Your task to perform on an android device: Is it going to rain tomorrow? Image 0: 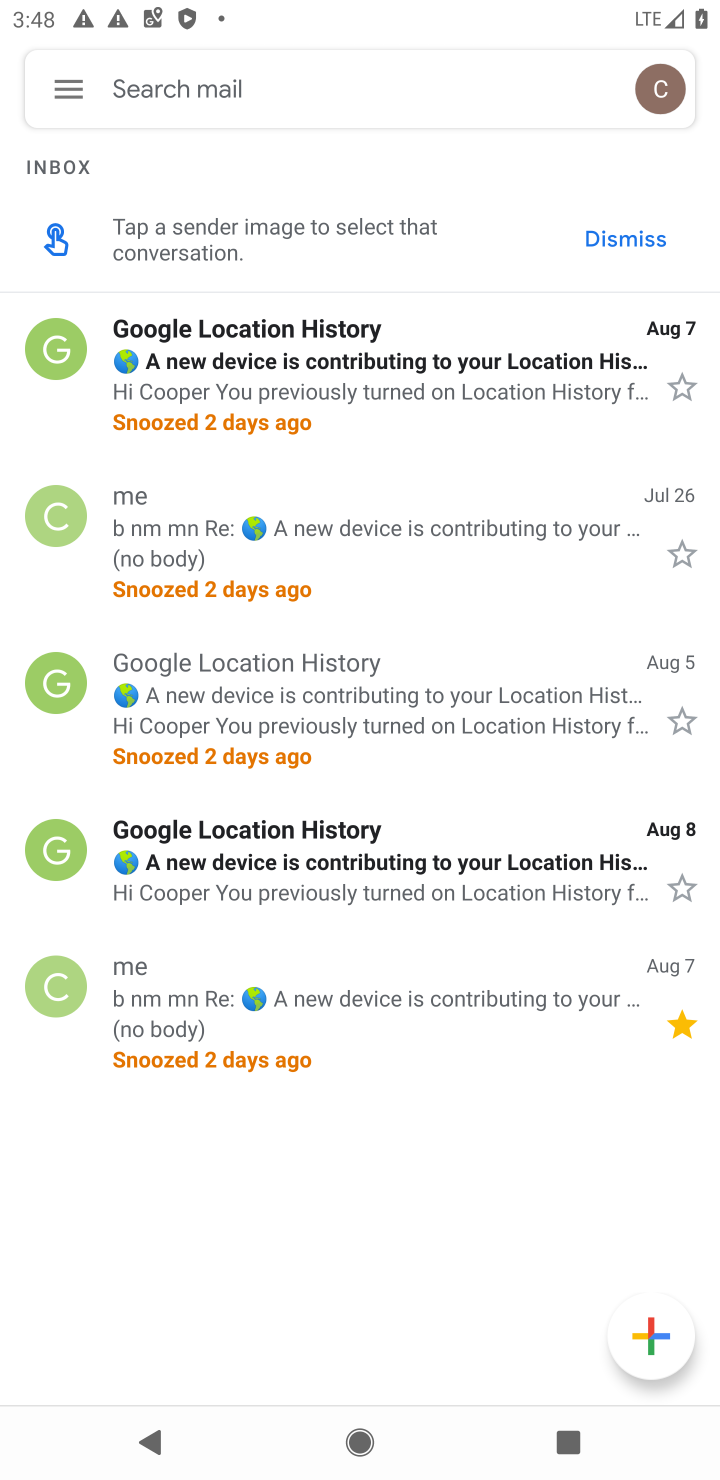
Step 0: press home button
Your task to perform on an android device: Is it going to rain tomorrow? Image 1: 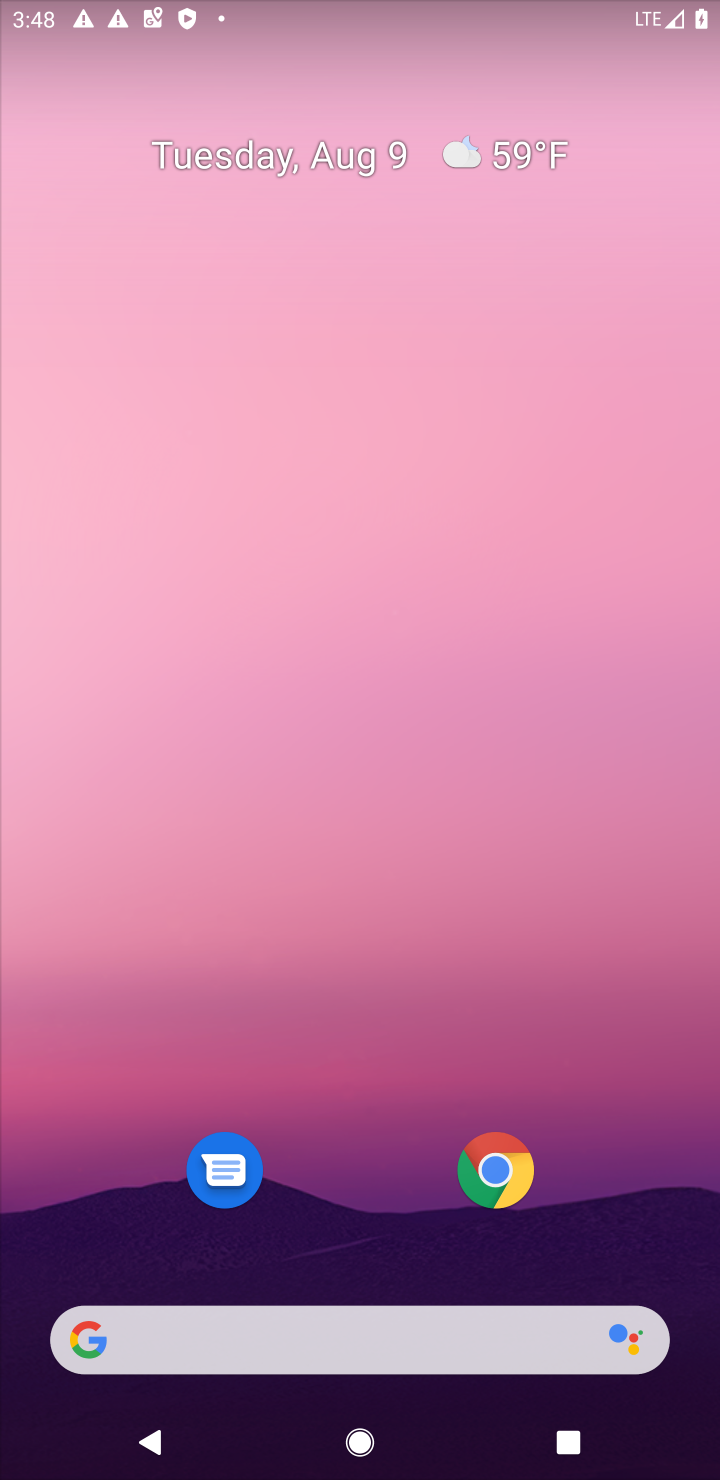
Step 1: click (83, 1336)
Your task to perform on an android device: Is it going to rain tomorrow? Image 2: 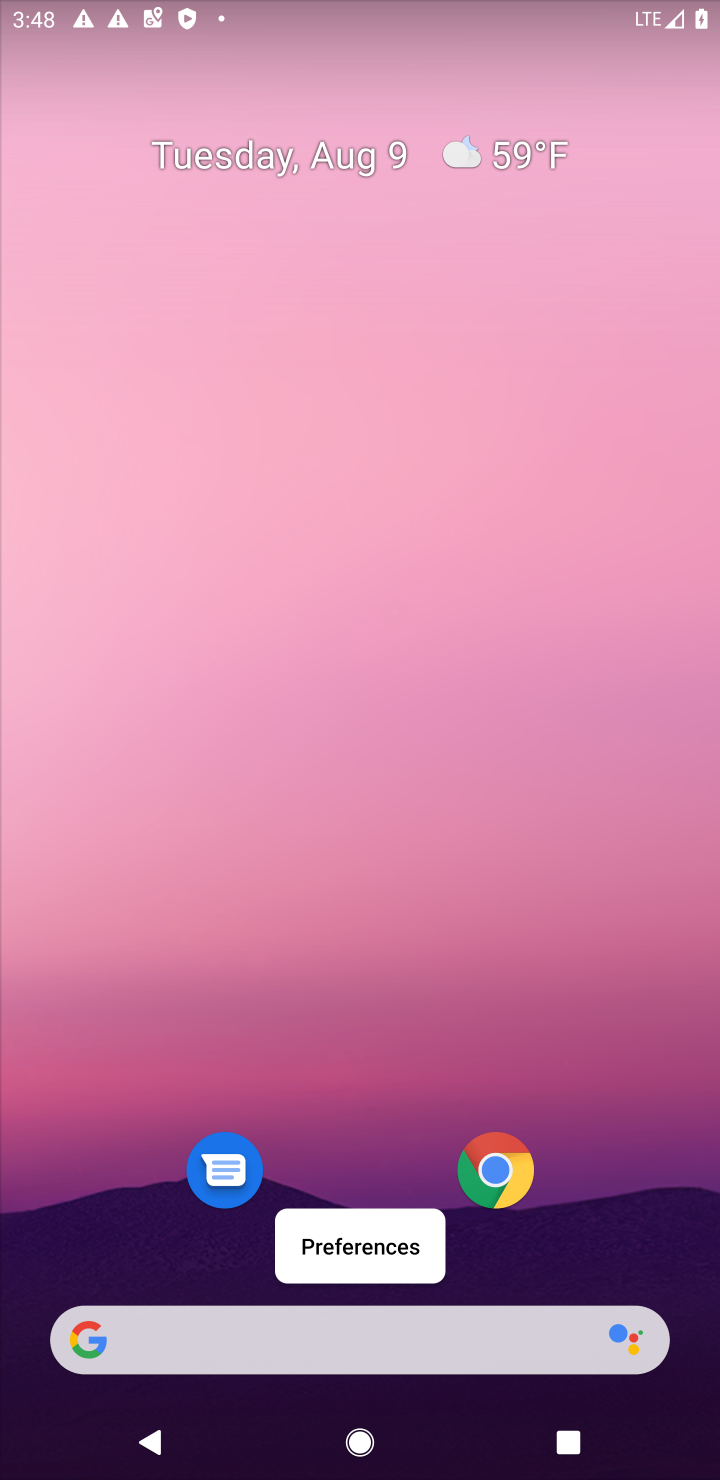
Step 2: click (83, 1336)
Your task to perform on an android device: Is it going to rain tomorrow? Image 3: 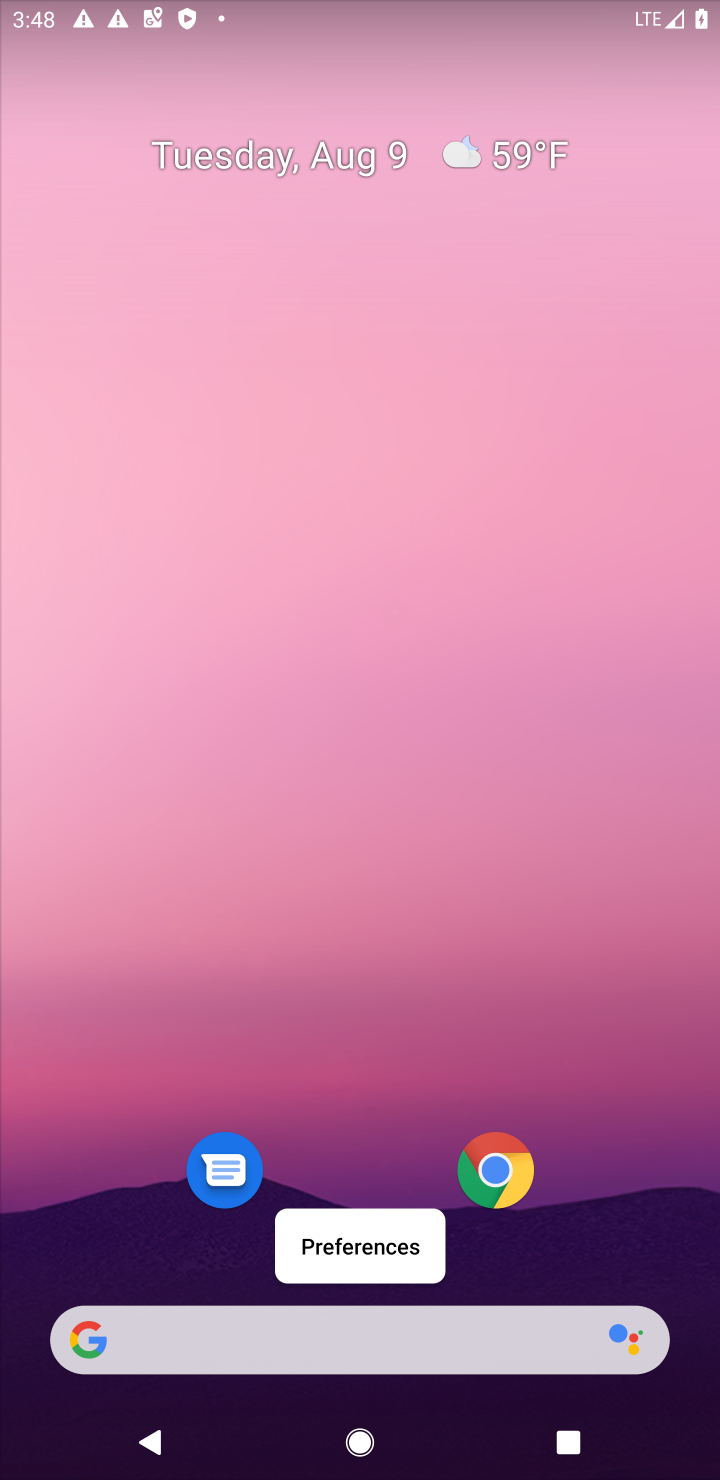
Step 3: click (91, 1330)
Your task to perform on an android device: Is it going to rain tomorrow? Image 4: 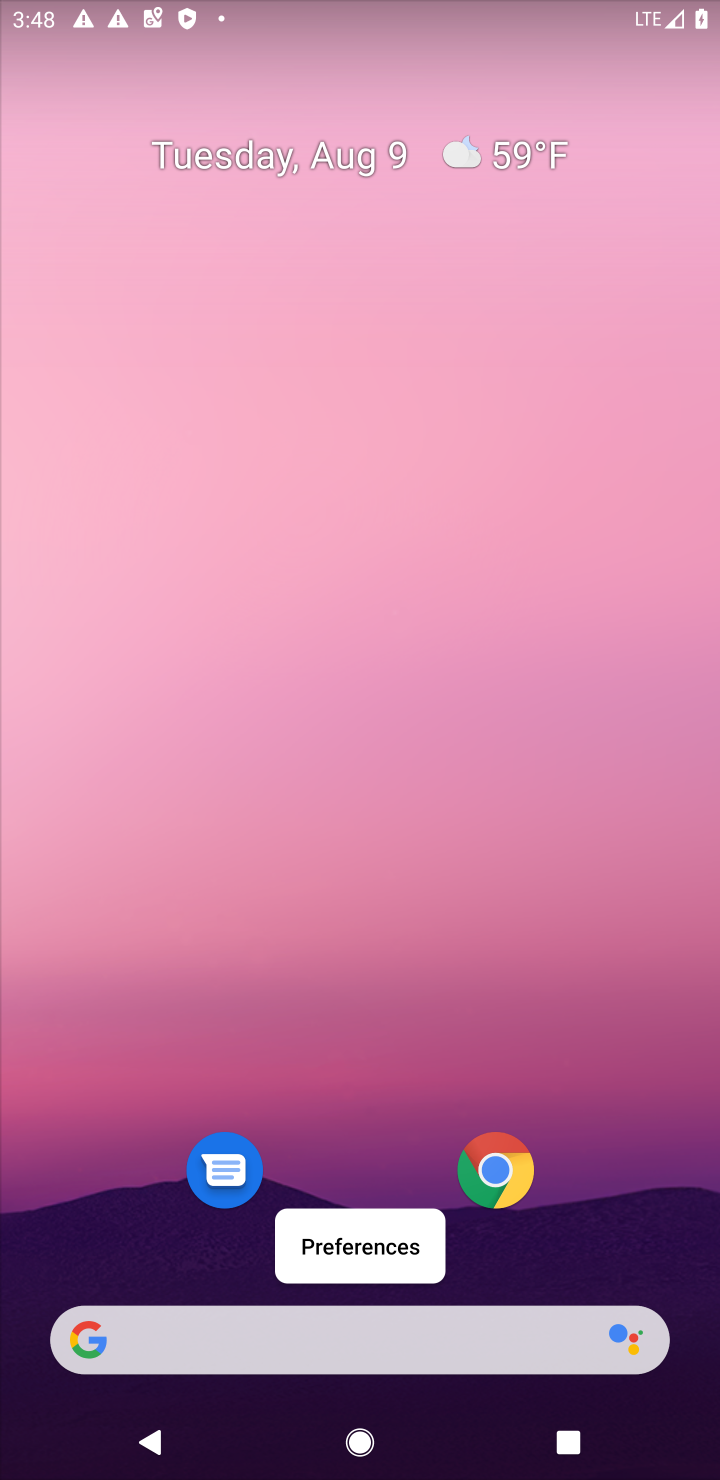
Step 4: click (87, 1336)
Your task to perform on an android device: Is it going to rain tomorrow? Image 5: 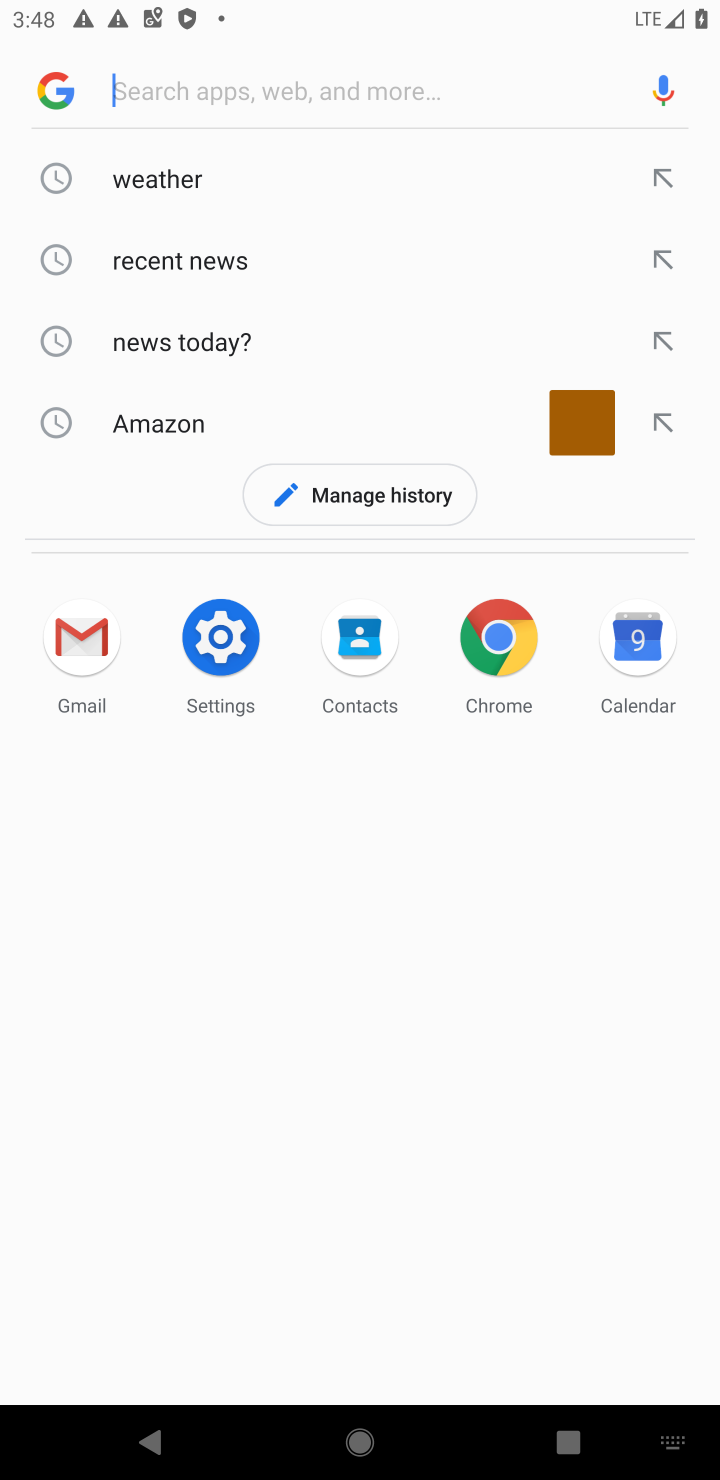
Step 5: click (90, 1329)
Your task to perform on an android device: Is it going to rain tomorrow? Image 6: 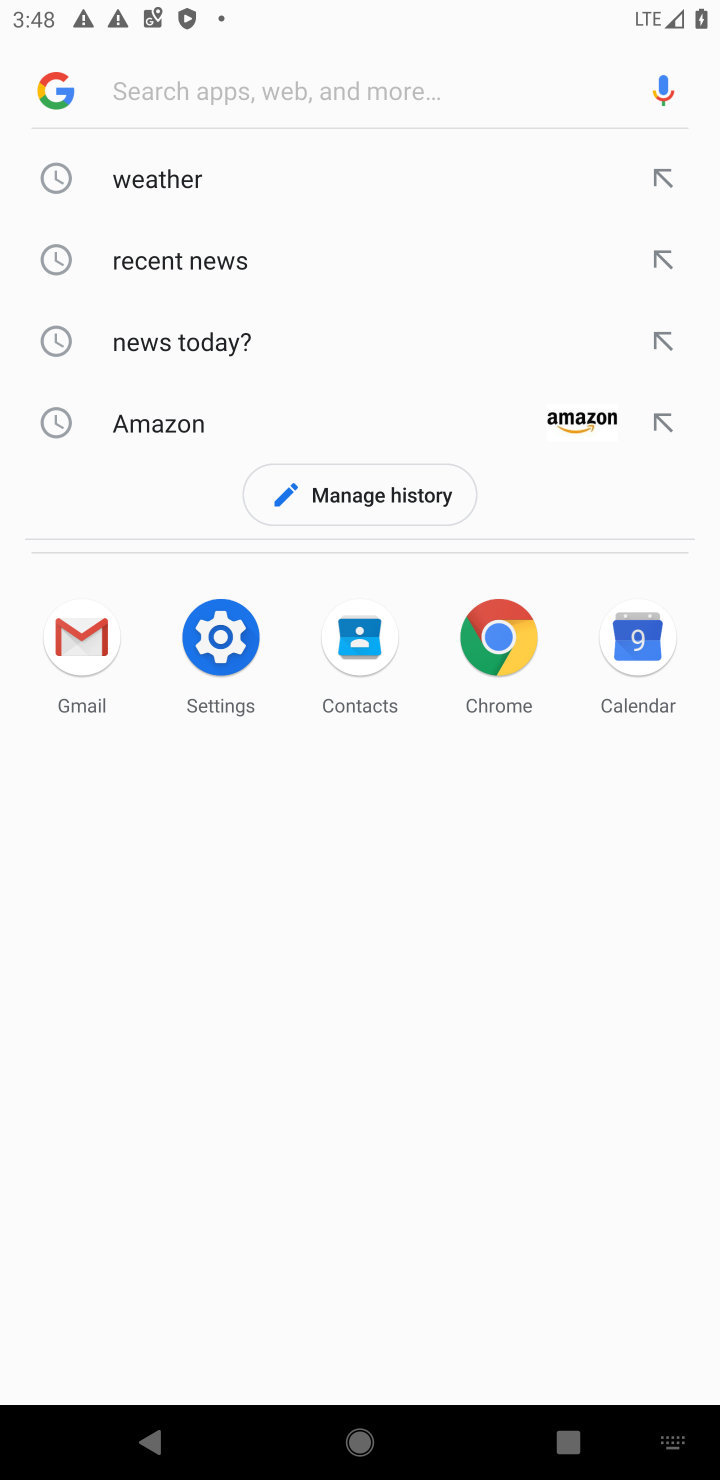
Step 6: type "Is it going to rain tomorrow?"
Your task to perform on an android device: Is it going to rain tomorrow? Image 7: 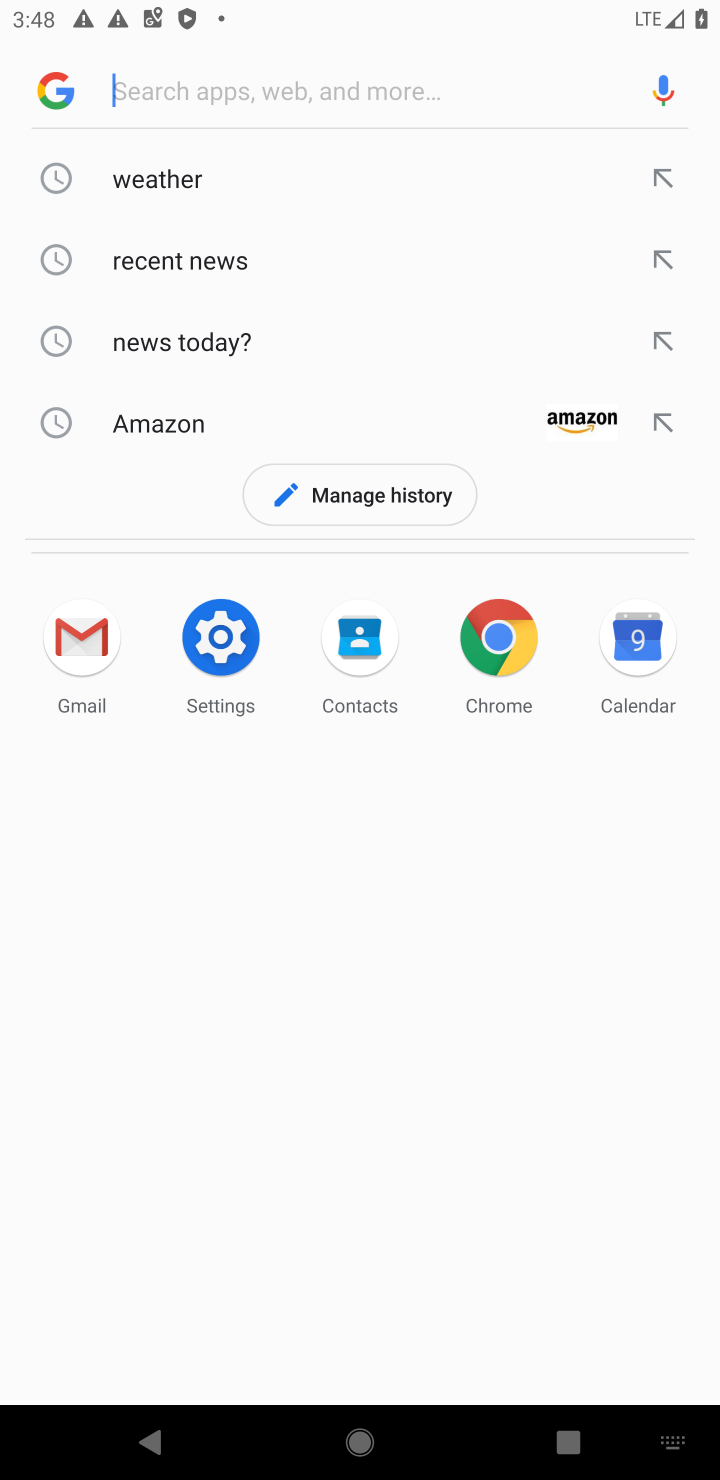
Step 7: click (238, 88)
Your task to perform on an android device: Is it going to rain tomorrow? Image 8: 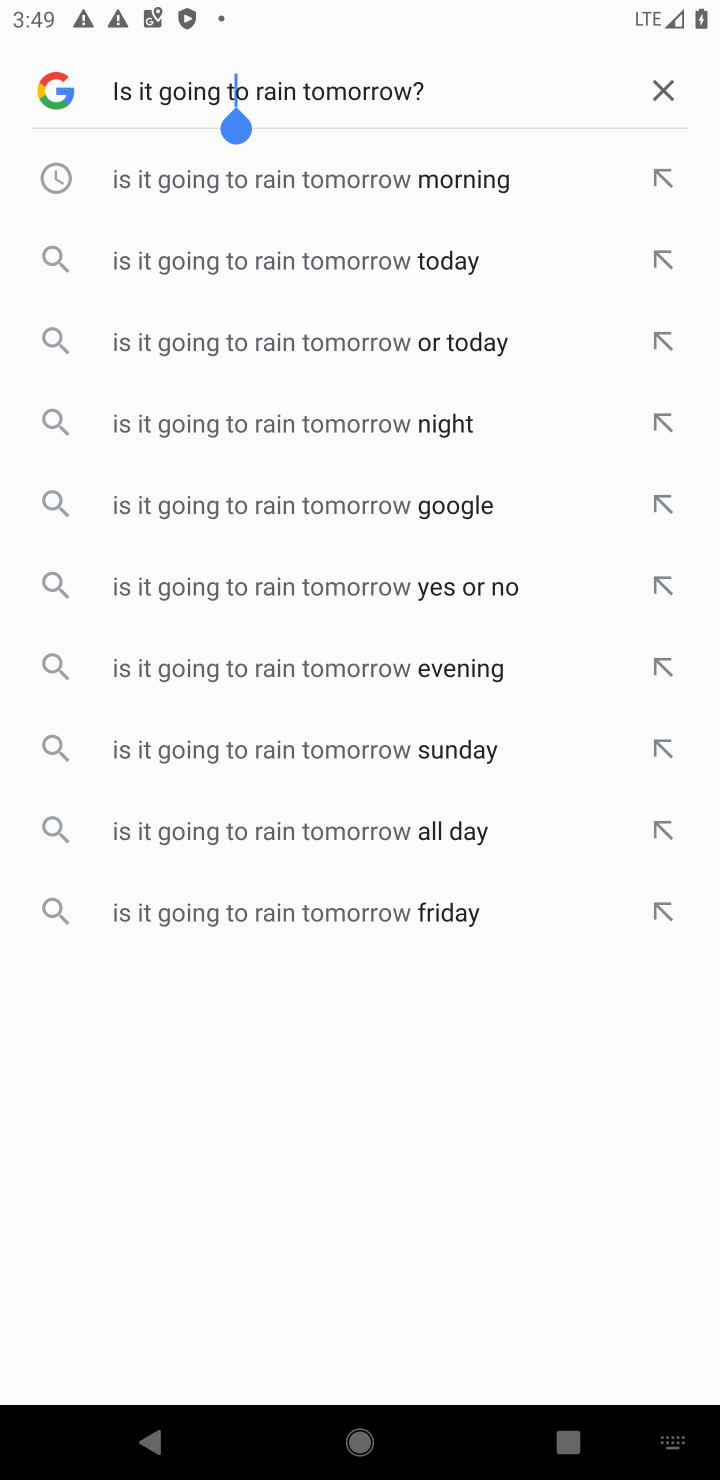
Step 8: press enter
Your task to perform on an android device: Is it going to rain tomorrow? Image 9: 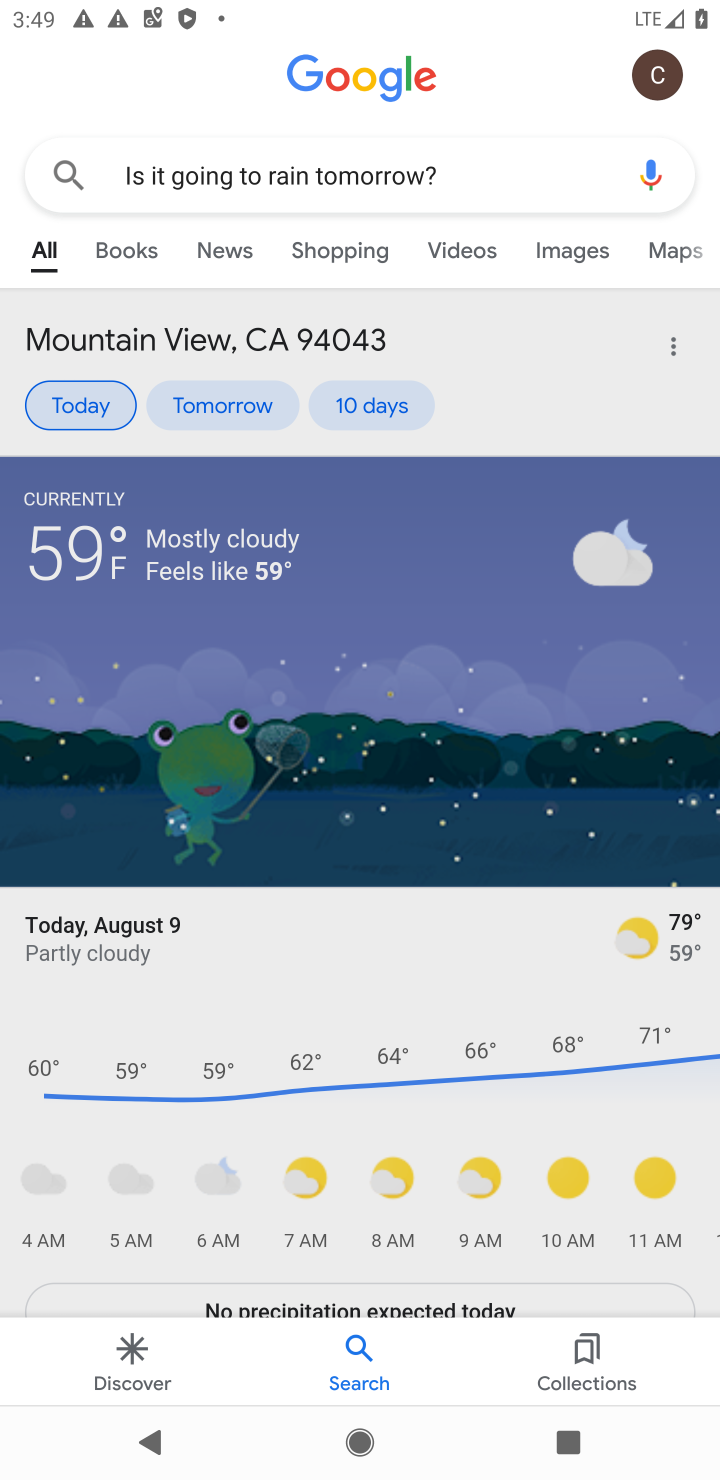
Step 9: task complete